Your task to perform on an android device: uninstall "TextNow: Call + Text Unlimited" Image 0: 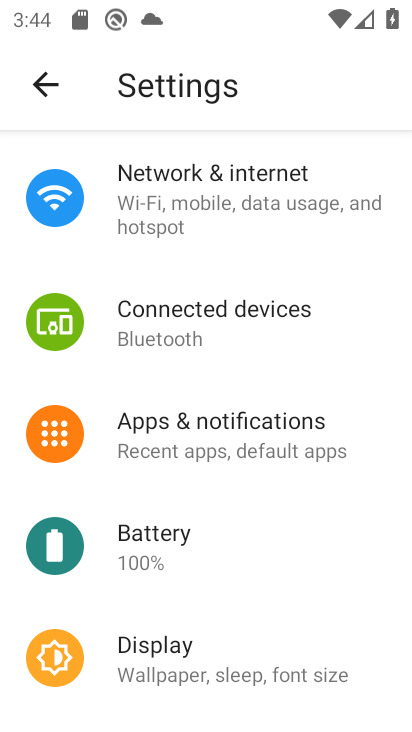
Step 0: press home button
Your task to perform on an android device: uninstall "TextNow: Call + Text Unlimited" Image 1: 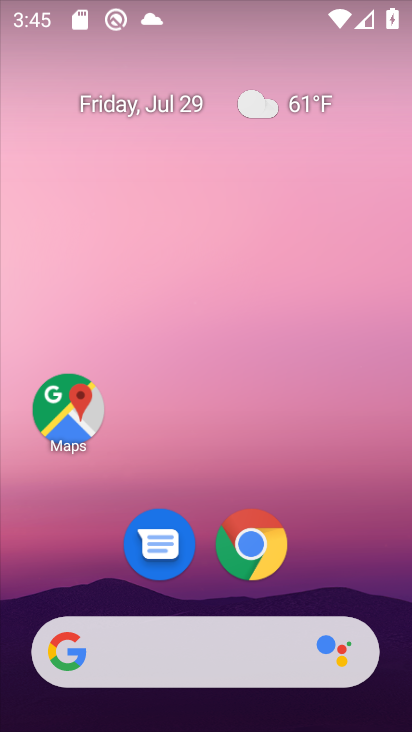
Step 1: drag from (202, 691) to (183, 154)
Your task to perform on an android device: uninstall "TextNow: Call + Text Unlimited" Image 2: 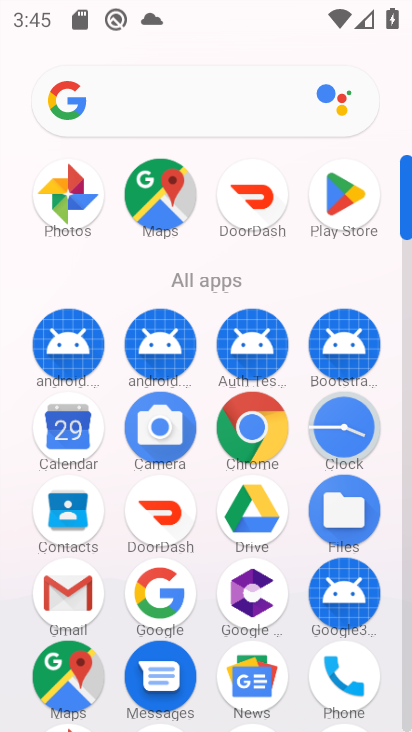
Step 2: click (349, 197)
Your task to perform on an android device: uninstall "TextNow: Call + Text Unlimited" Image 3: 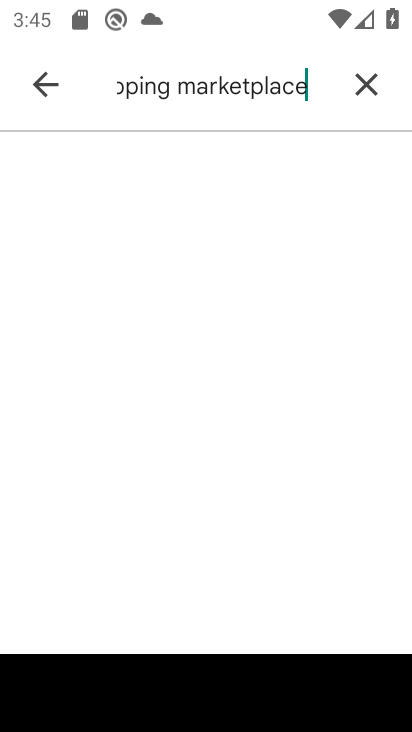
Step 3: click (368, 86)
Your task to perform on an android device: uninstall "TextNow: Call + Text Unlimited" Image 4: 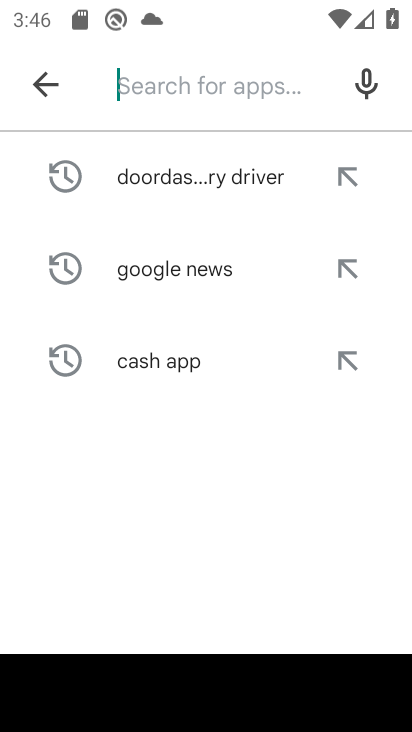
Step 4: type "TextNow: Call + Text Unlimited"
Your task to perform on an android device: uninstall "TextNow: Call + Text Unlimited" Image 5: 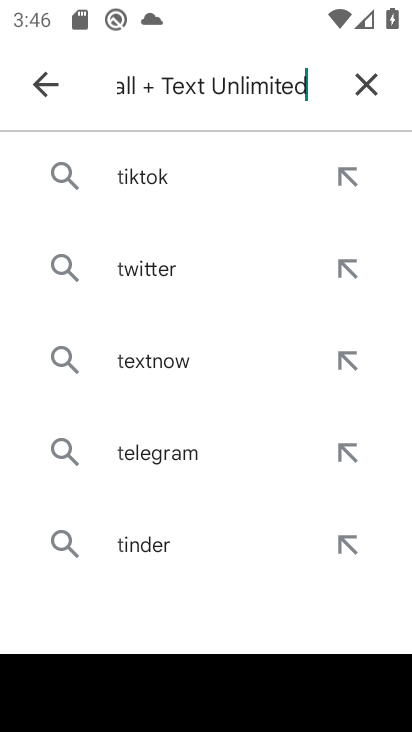
Step 5: type ""
Your task to perform on an android device: uninstall "TextNow: Call + Text Unlimited" Image 6: 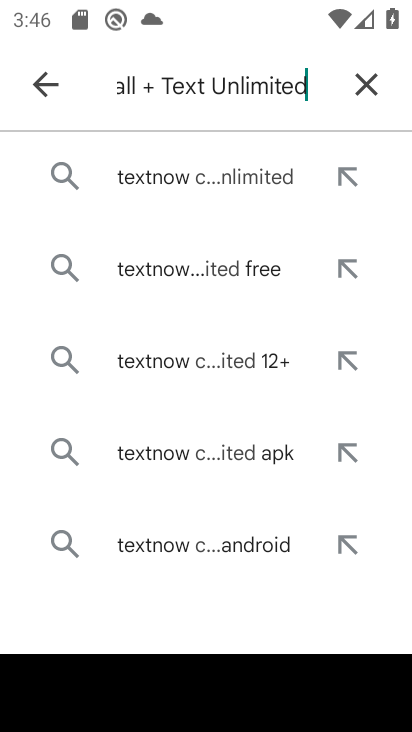
Step 6: click (214, 173)
Your task to perform on an android device: uninstall "TextNow: Call + Text Unlimited" Image 7: 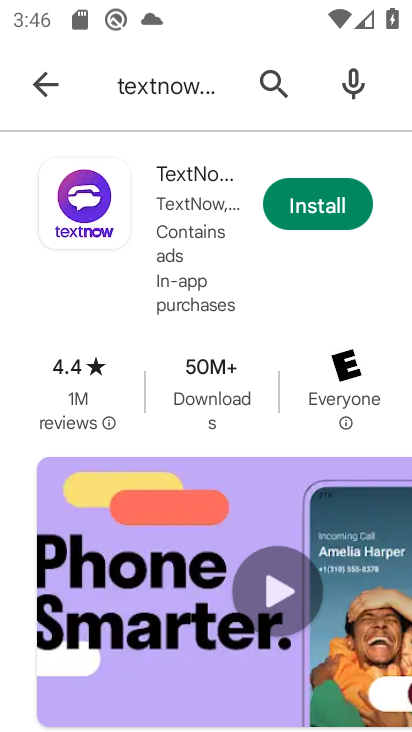
Step 7: task complete